Your task to perform on an android device: Add "razer nari" to the cart on bestbuy, then select checkout. Image 0: 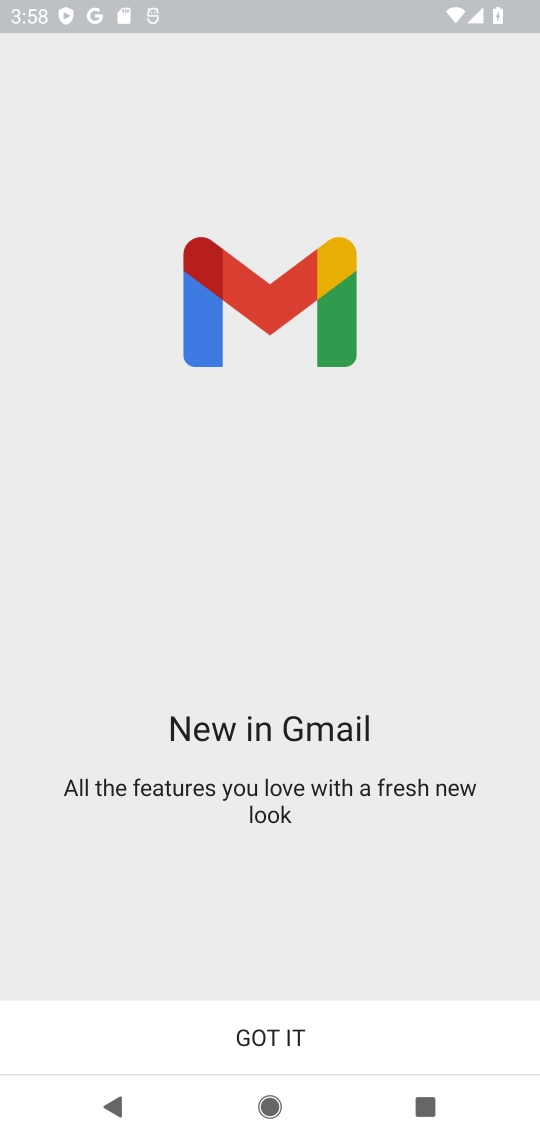
Step 0: press home button
Your task to perform on an android device: Add "razer nari" to the cart on bestbuy, then select checkout. Image 1: 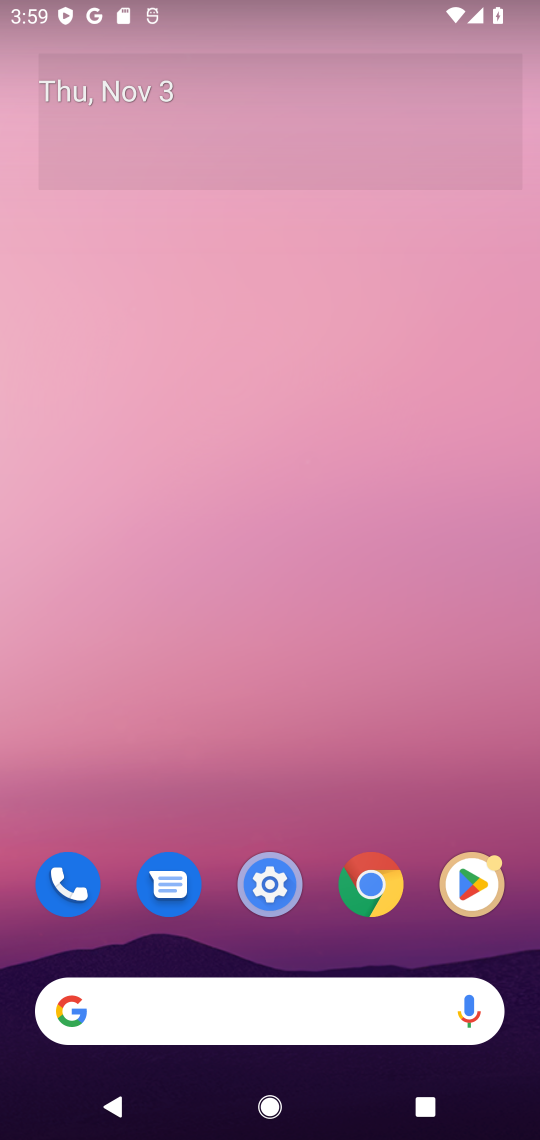
Step 1: click (110, 1012)
Your task to perform on an android device: Add "razer nari" to the cart on bestbuy, then select checkout. Image 2: 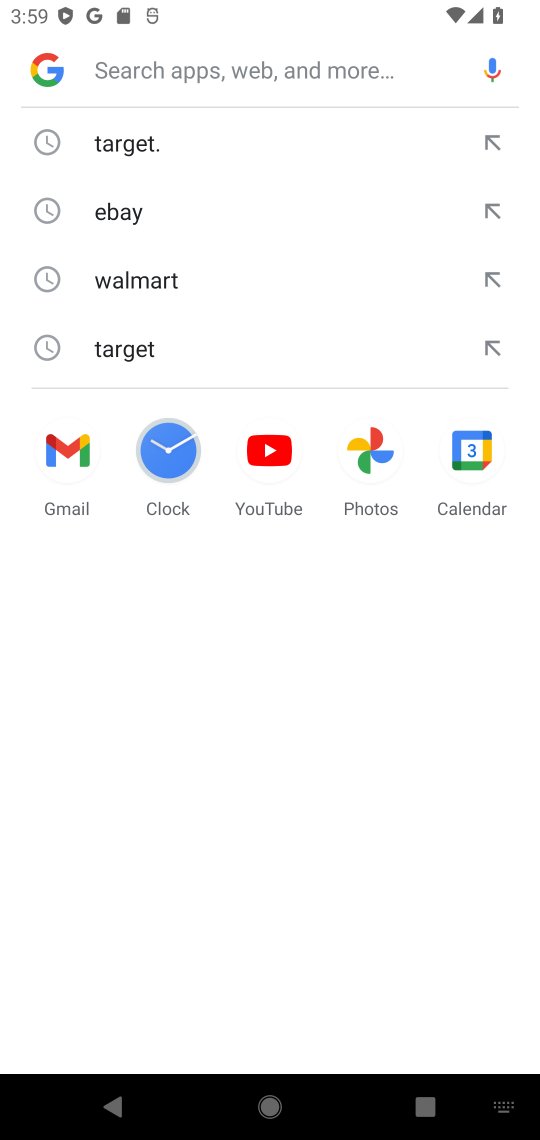
Step 2: type "bestbuy"
Your task to perform on an android device: Add "razer nari" to the cart on bestbuy, then select checkout. Image 3: 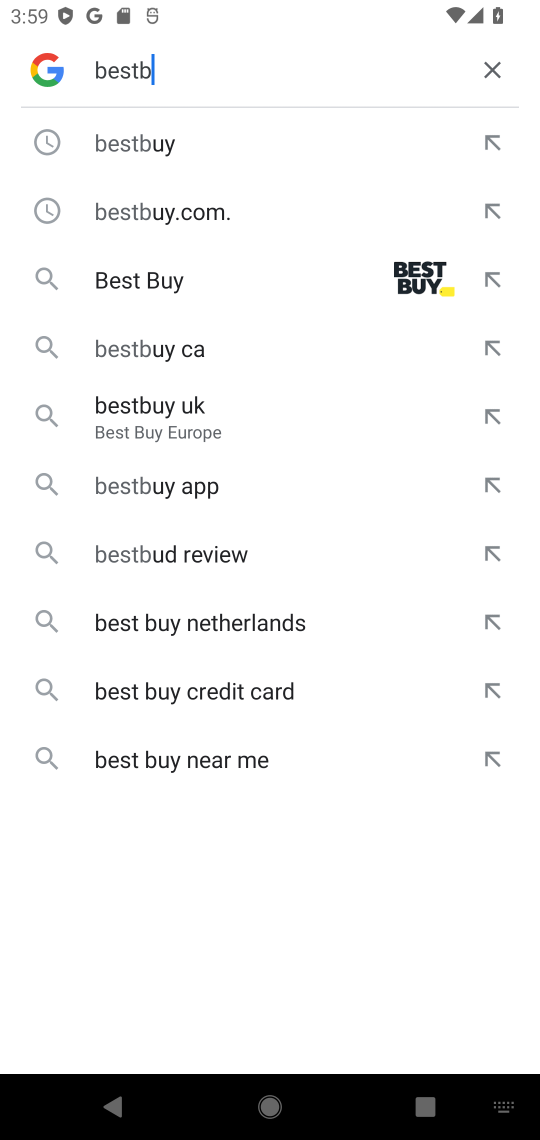
Step 3: press enter
Your task to perform on an android device: Add "razer nari" to the cart on bestbuy, then select checkout. Image 4: 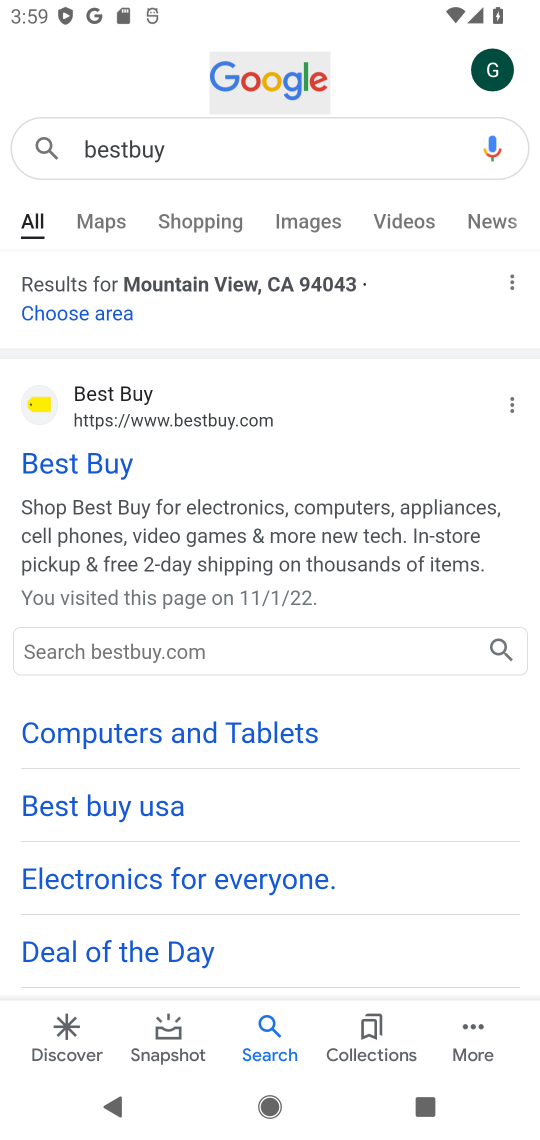
Step 4: click (85, 466)
Your task to perform on an android device: Add "razer nari" to the cart on bestbuy, then select checkout. Image 5: 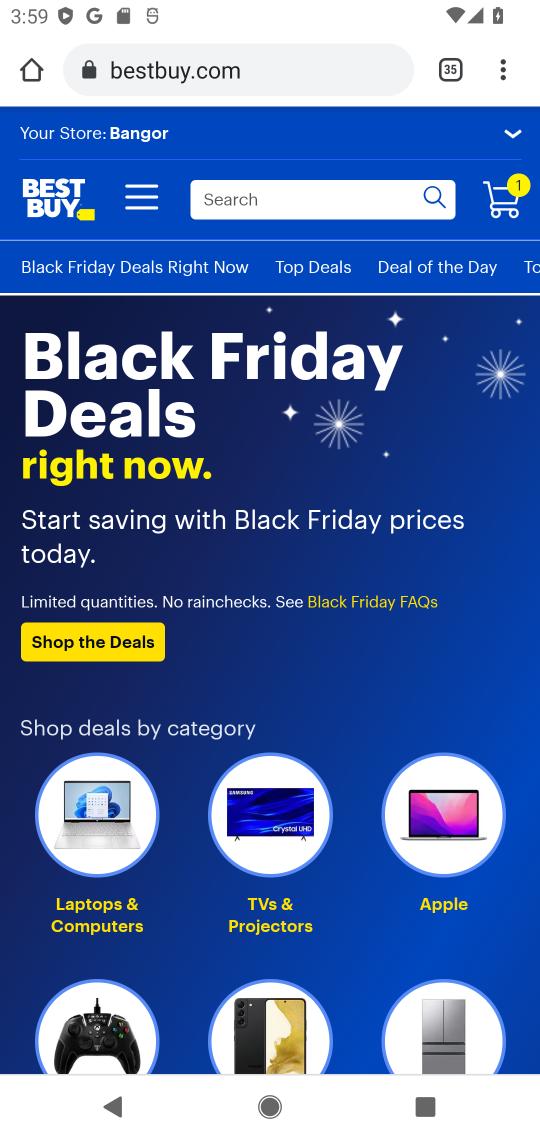
Step 5: click (242, 194)
Your task to perform on an android device: Add "razer nari" to the cart on bestbuy, then select checkout. Image 6: 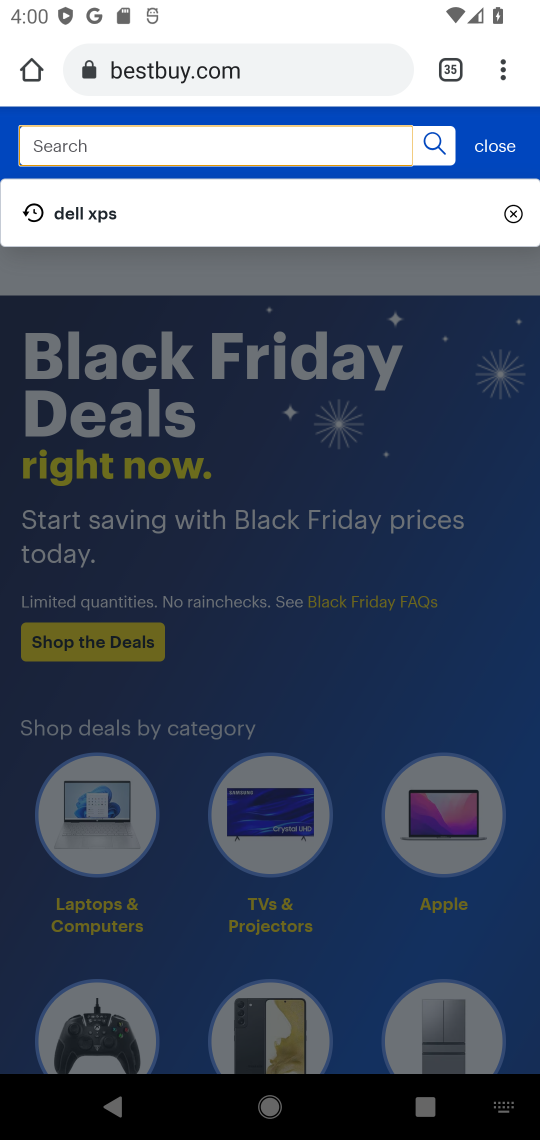
Step 6: press enter
Your task to perform on an android device: Add "razer nari" to the cart on bestbuy, then select checkout. Image 7: 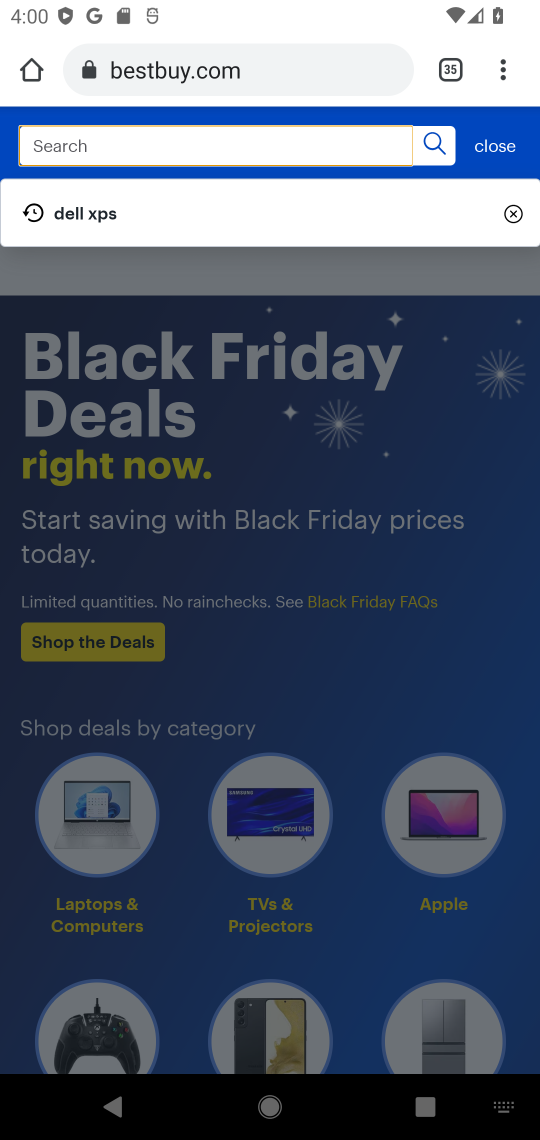
Step 7: type "razer nari"
Your task to perform on an android device: Add "razer nari" to the cart on bestbuy, then select checkout. Image 8: 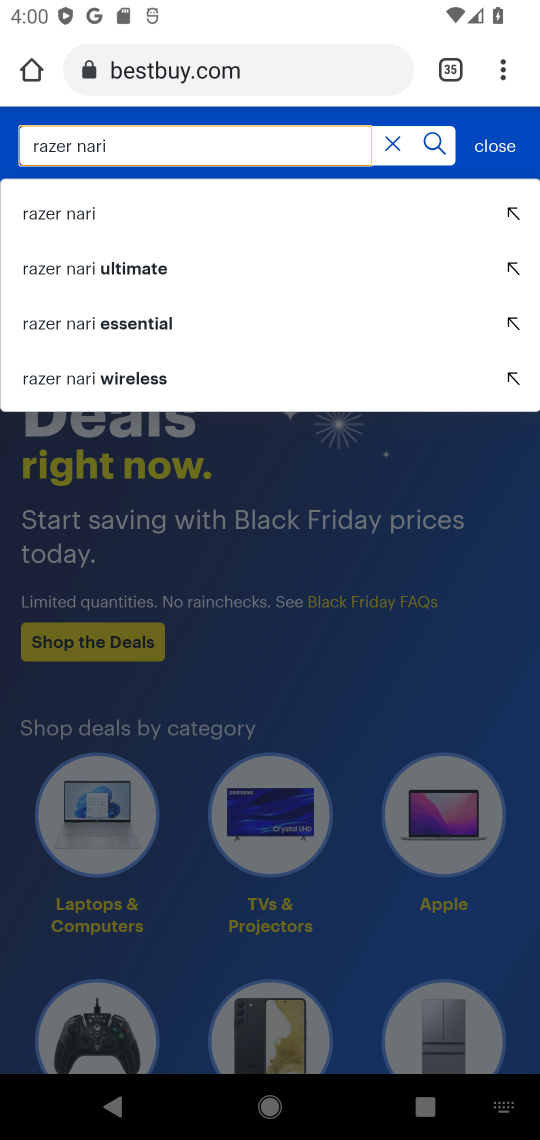
Step 8: press enter
Your task to perform on an android device: Add "razer nari" to the cart on bestbuy, then select checkout. Image 9: 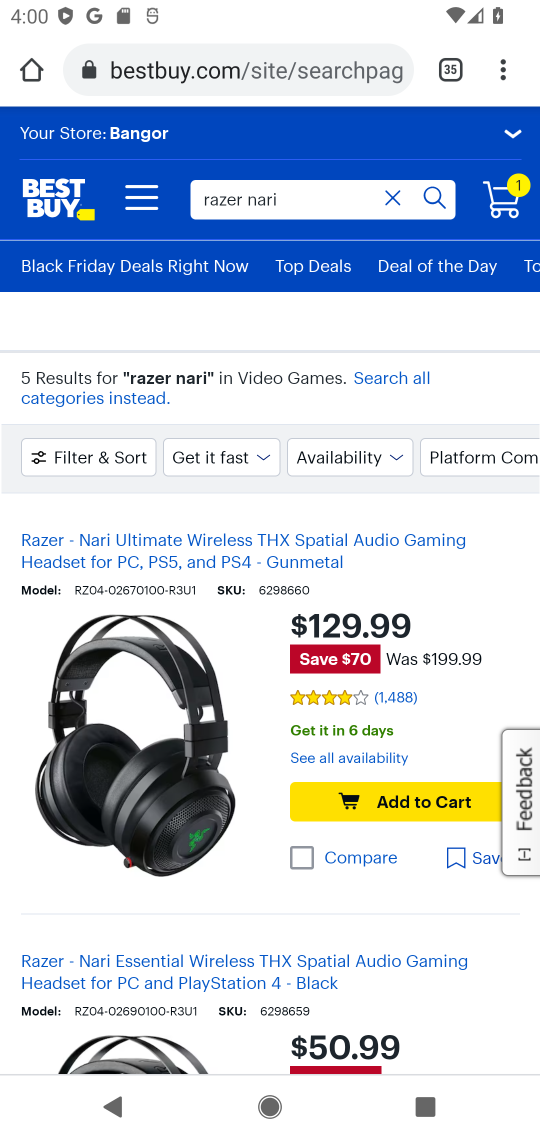
Step 9: click (404, 799)
Your task to perform on an android device: Add "razer nari" to the cart on bestbuy, then select checkout. Image 10: 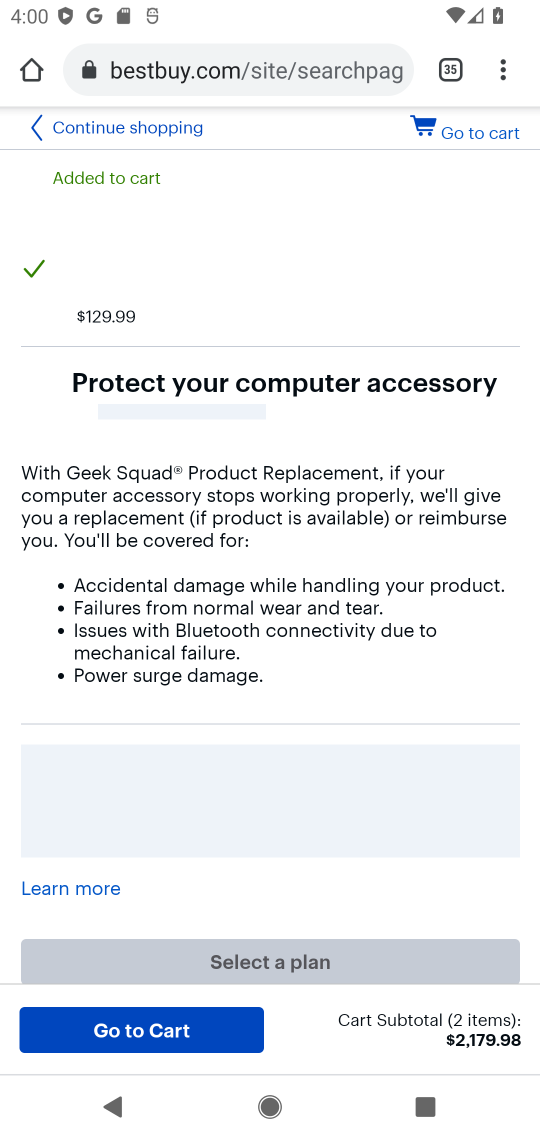
Step 10: click (138, 1037)
Your task to perform on an android device: Add "razer nari" to the cart on bestbuy, then select checkout. Image 11: 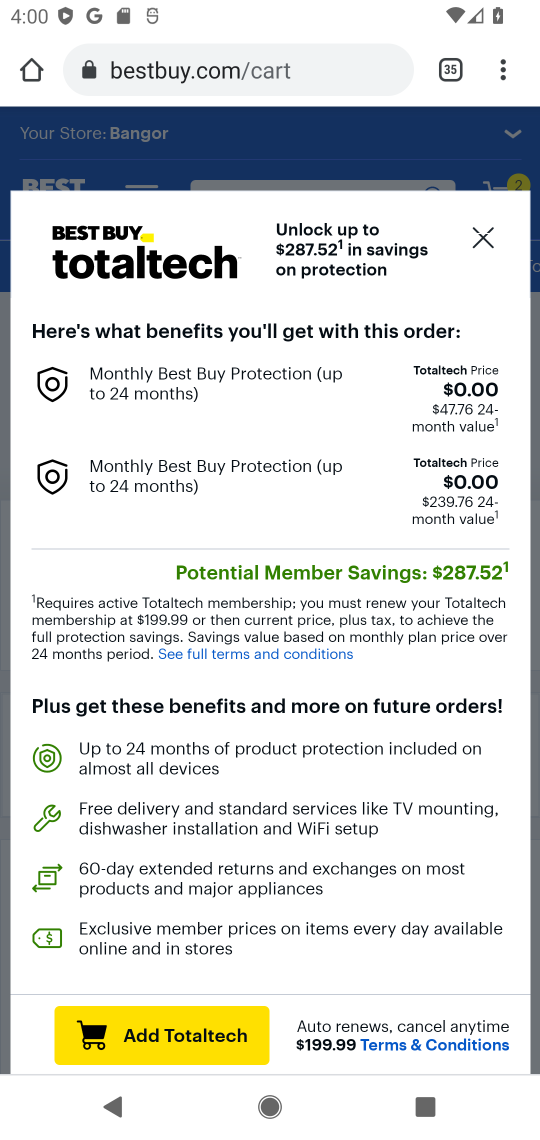
Step 11: click (478, 234)
Your task to perform on an android device: Add "razer nari" to the cart on bestbuy, then select checkout. Image 12: 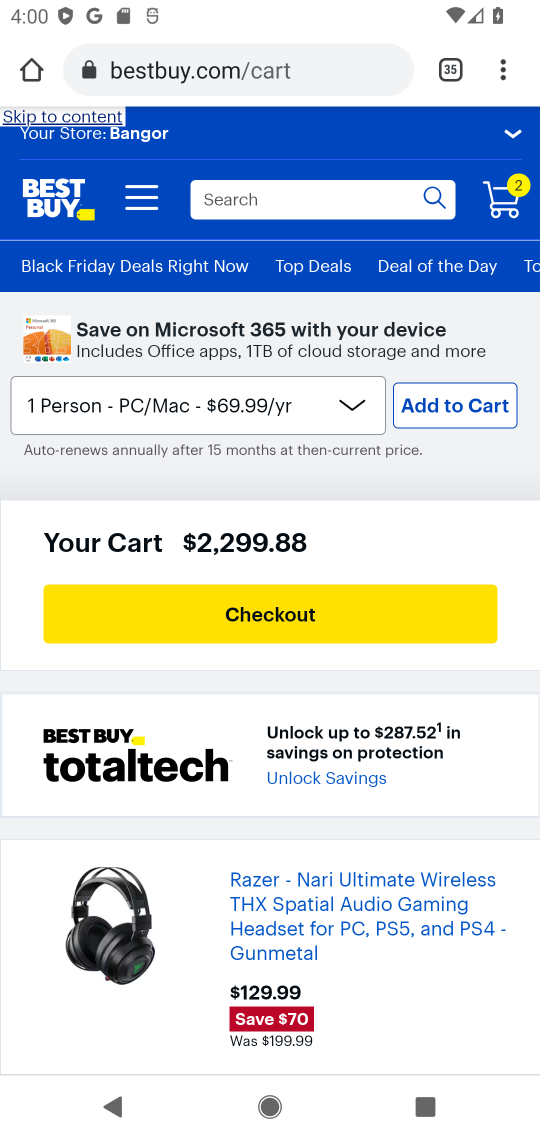
Step 12: click (258, 603)
Your task to perform on an android device: Add "razer nari" to the cart on bestbuy, then select checkout. Image 13: 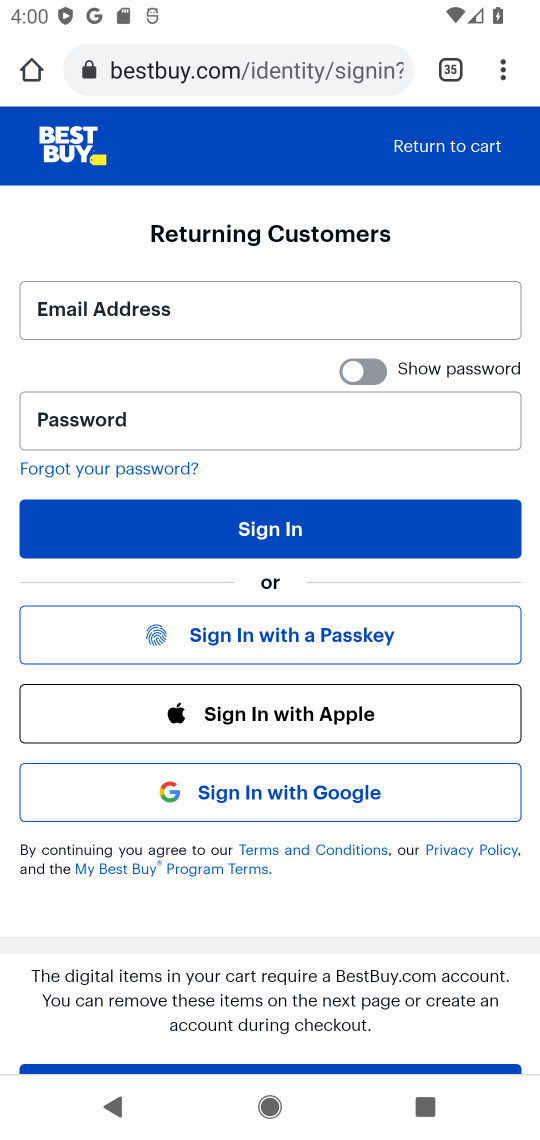
Step 13: task complete